Your task to perform on an android device: Clear the cart on bestbuy. Search for "lg ultragear" on bestbuy, select the first entry, add it to the cart, then select checkout. Image 0: 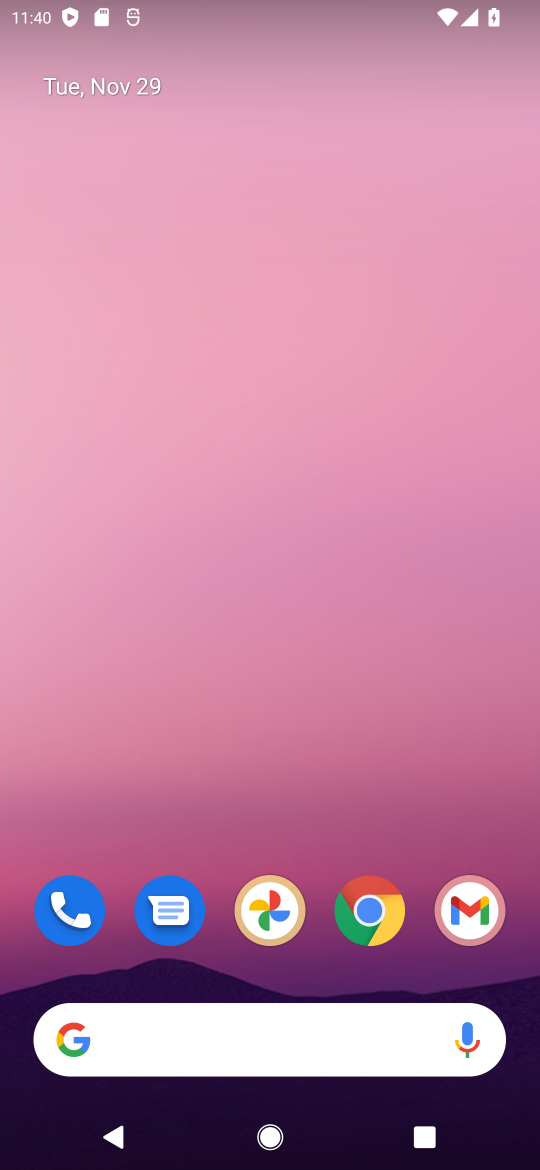
Step 0: click (373, 913)
Your task to perform on an android device: Clear the cart on bestbuy. Search for "lg ultragear" on bestbuy, select the first entry, add it to the cart, then select checkout. Image 1: 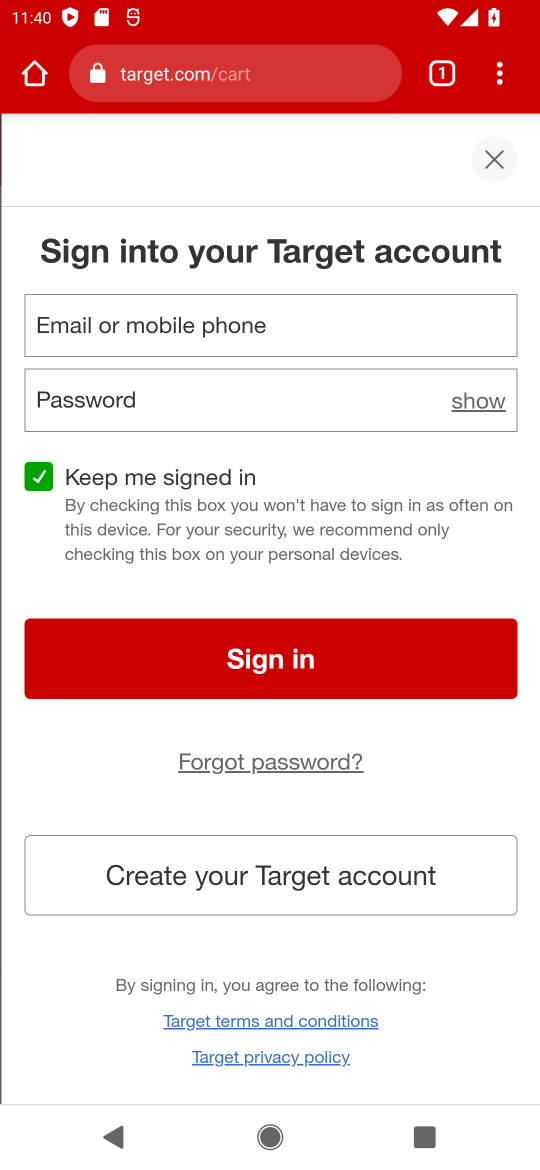
Step 1: click (201, 80)
Your task to perform on an android device: Clear the cart on bestbuy. Search for "lg ultragear" on bestbuy, select the first entry, add it to the cart, then select checkout. Image 2: 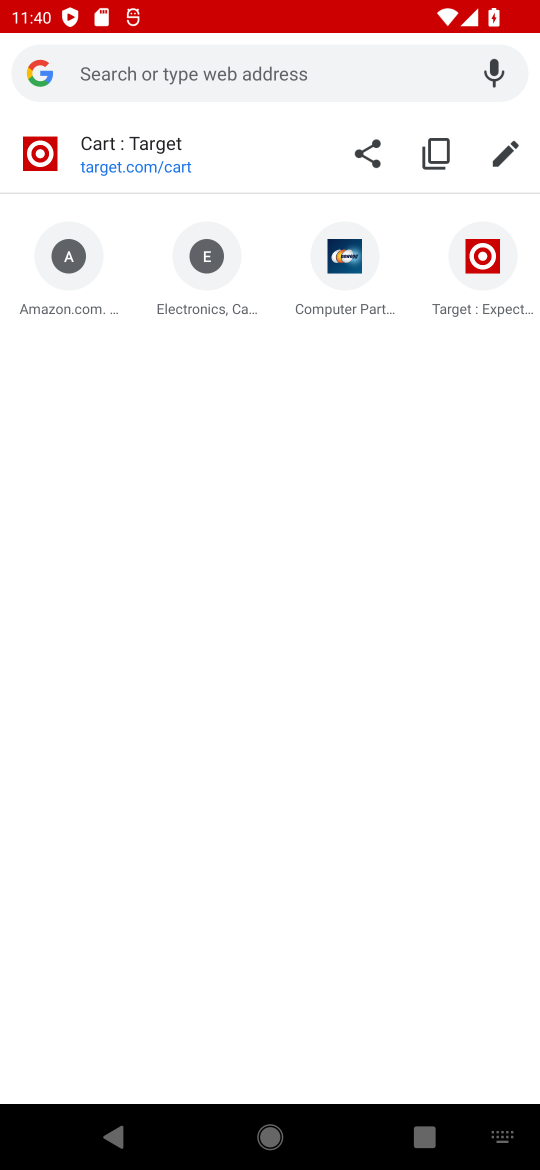
Step 2: type "bestbuy.com"
Your task to perform on an android device: Clear the cart on bestbuy. Search for "lg ultragear" on bestbuy, select the first entry, add it to the cart, then select checkout. Image 3: 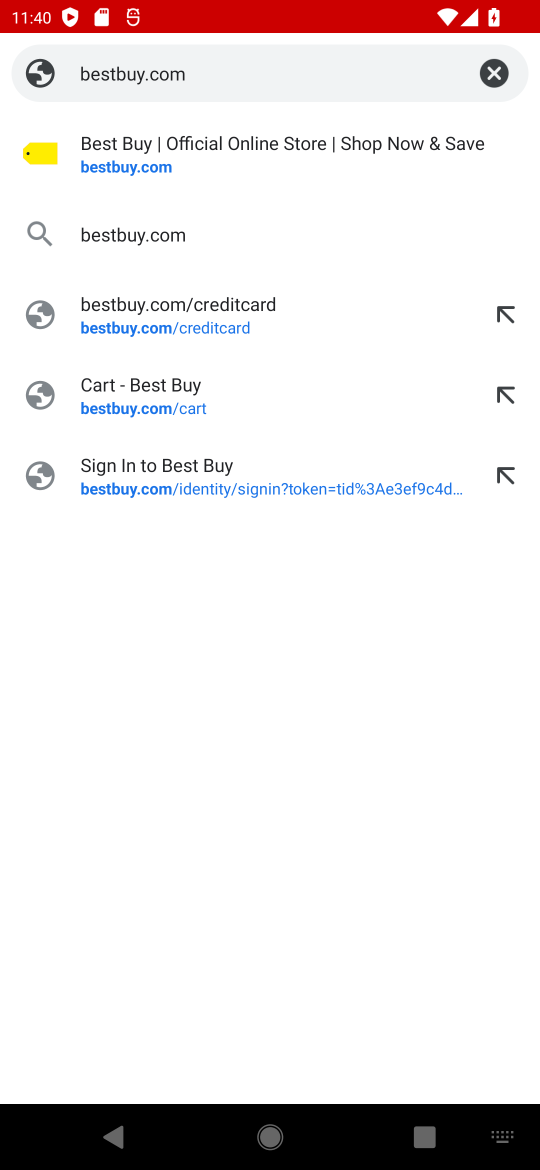
Step 3: click (123, 153)
Your task to perform on an android device: Clear the cart on bestbuy. Search for "lg ultragear" on bestbuy, select the first entry, add it to the cart, then select checkout. Image 4: 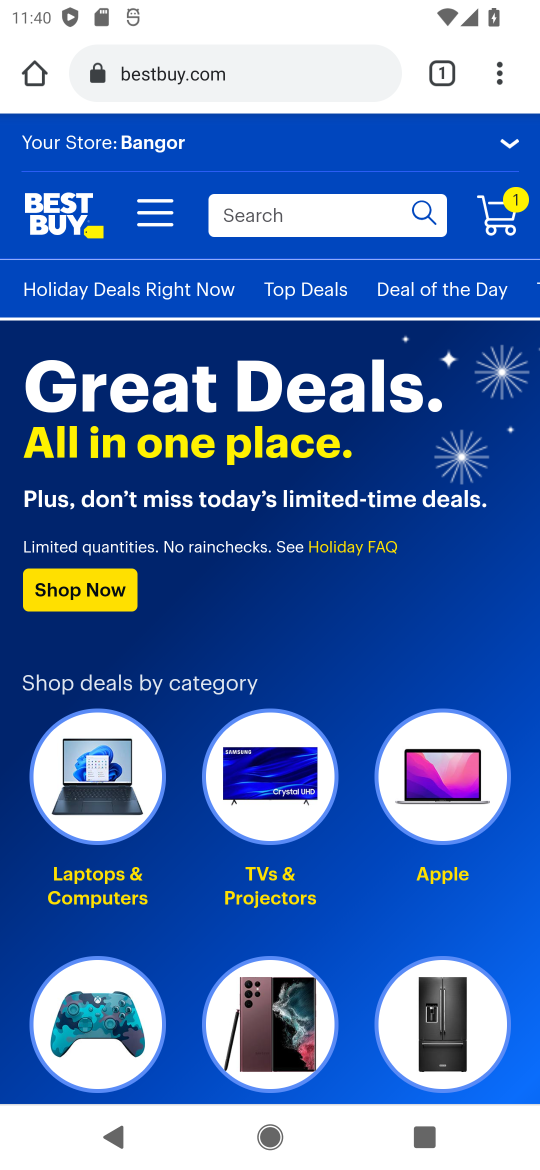
Step 4: click (502, 212)
Your task to perform on an android device: Clear the cart on bestbuy. Search for "lg ultragear" on bestbuy, select the first entry, add it to the cart, then select checkout. Image 5: 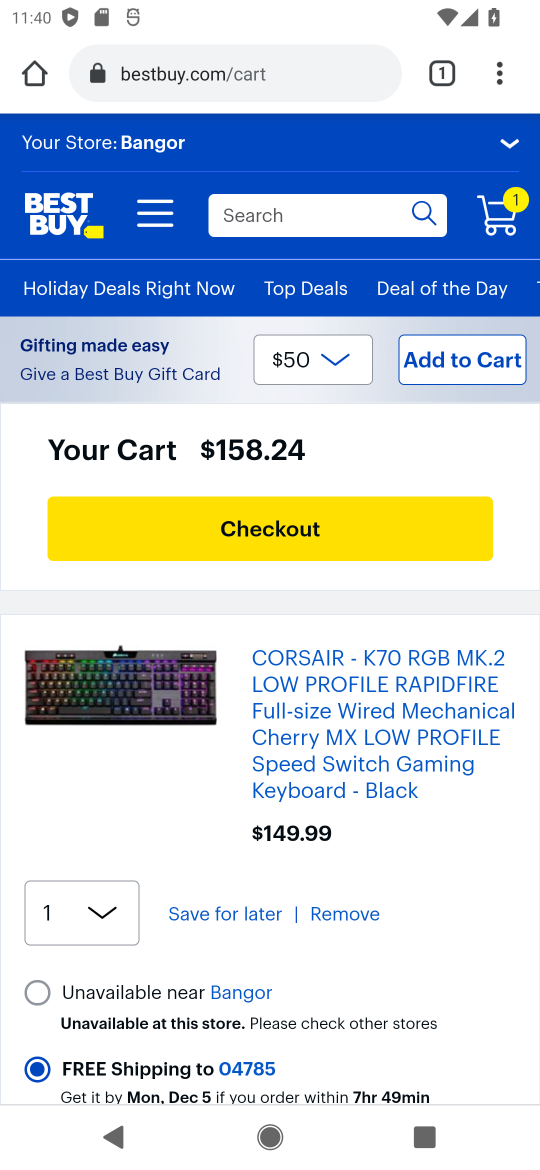
Step 5: click (338, 908)
Your task to perform on an android device: Clear the cart on bestbuy. Search for "lg ultragear" on bestbuy, select the first entry, add it to the cart, then select checkout. Image 6: 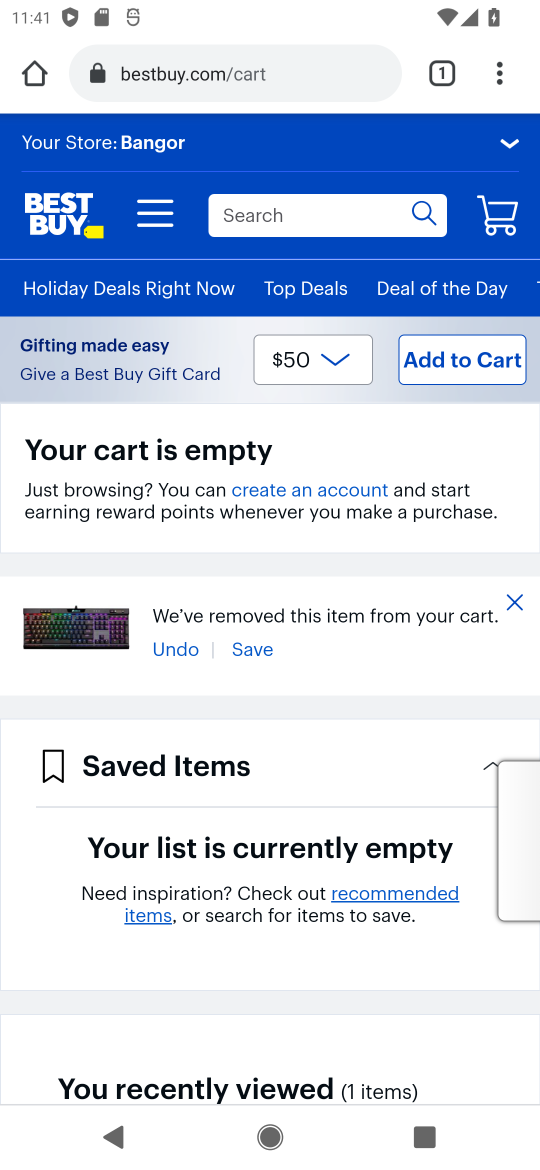
Step 6: click (282, 218)
Your task to perform on an android device: Clear the cart on bestbuy. Search for "lg ultragear" on bestbuy, select the first entry, add it to the cart, then select checkout. Image 7: 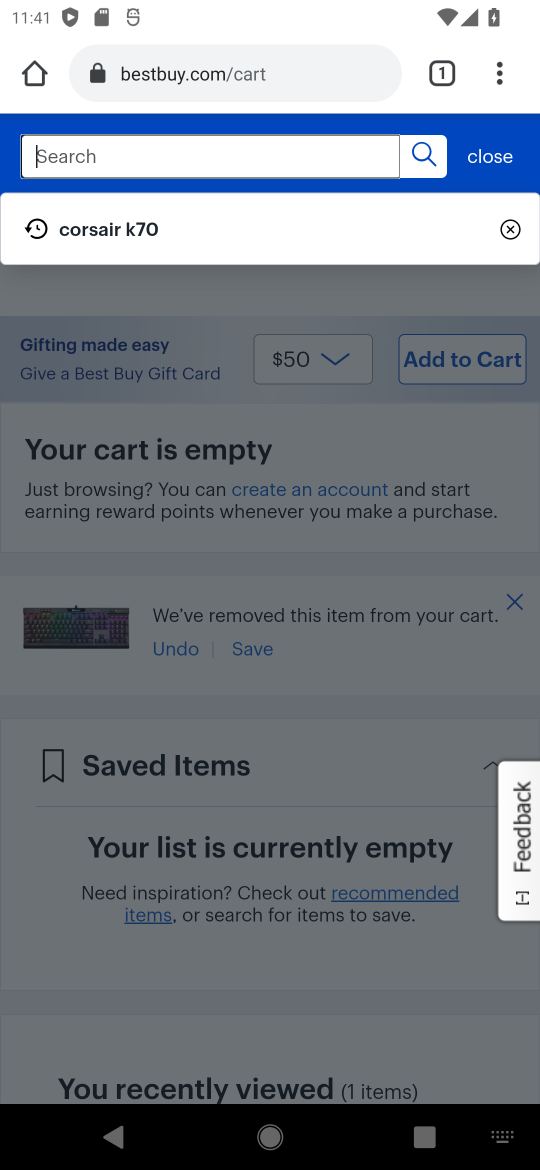
Step 7: type "lg ultragear"
Your task to perform on an android device: Clear the cart on bestbuy. Search for "lg ultragear" on bestbuy, select the first entry, add it to the cart, then select checkout. Image 8: 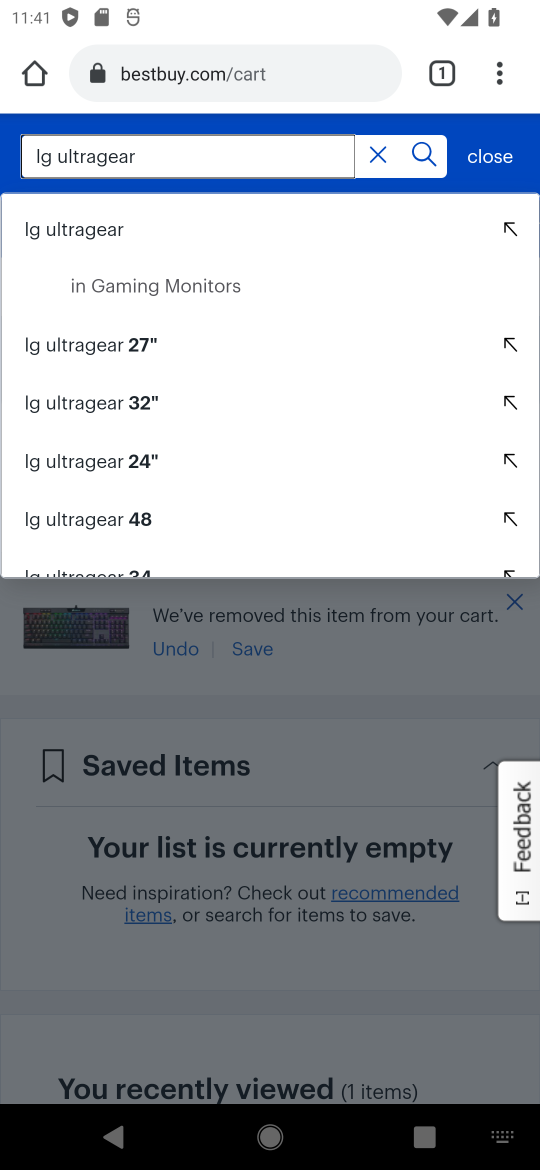
Step 8: click (93, 233)
Your task to perform on an android device: Clear the cart on bestbuy. Search for "lg ultragear" on bestbuy, select the first entry, add it to the cart, then select checkout. Image 9: 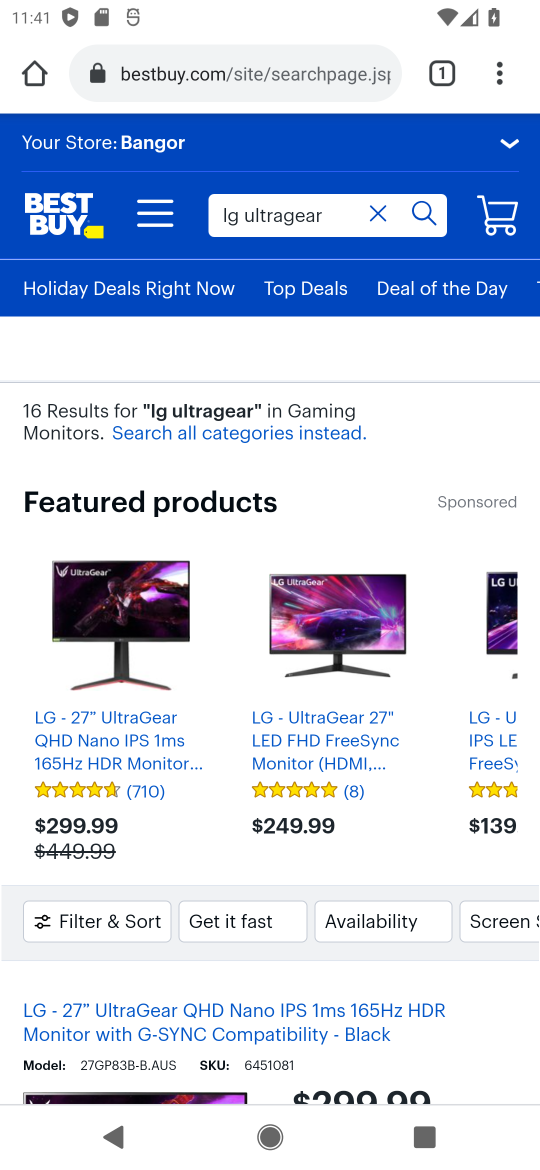
Step 9: drag from (409, 966) to (339, 522)
Your task to perform on an android device: Clear the cart on bestbuy. Search for "lg ultragear" on bestbuy, select the first entry, add it to the cart, then select checkout. Image 10: 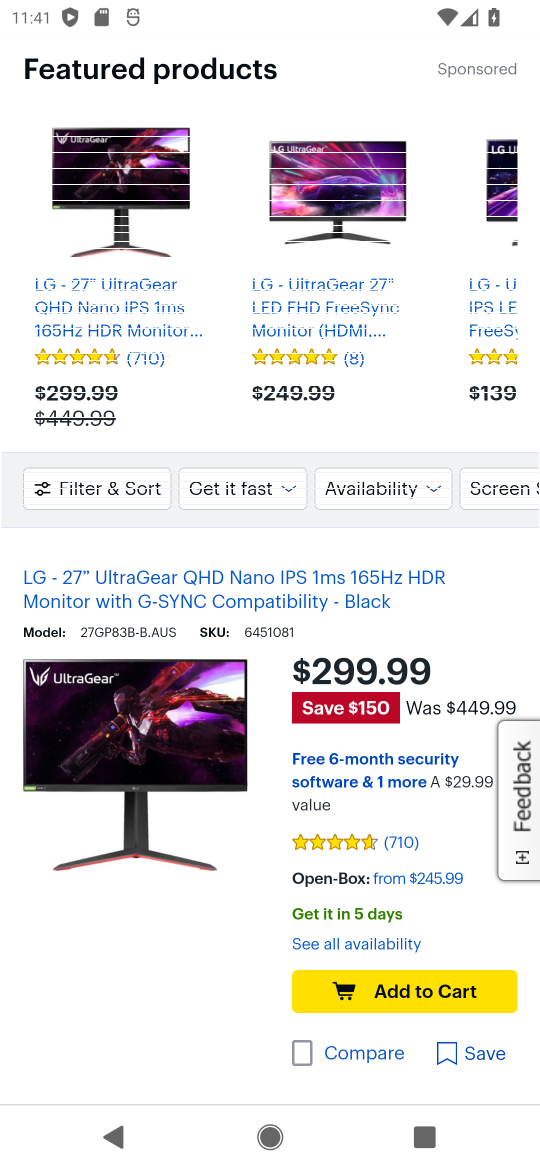
Step 10: click (395, 978)
Your task to perform on an android device: Clear the cart on bestbuy. Search for "lg ultragear" on bestbuy, select the first entry, add it to the cart, then select checkout. Image 11: 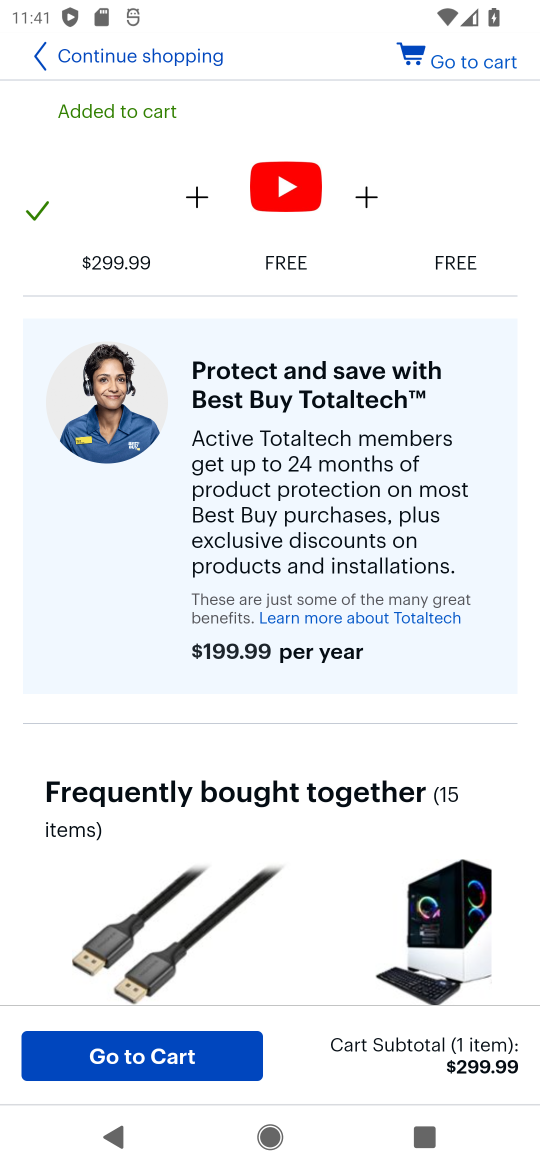
Step 11: click (480, 61)
Your task to perform on an android device: Clear the cart on bestbuy. Search for "lg ultragear" on bestbuy, select the first entry, add it to the cart, then select checkout. Image 12: 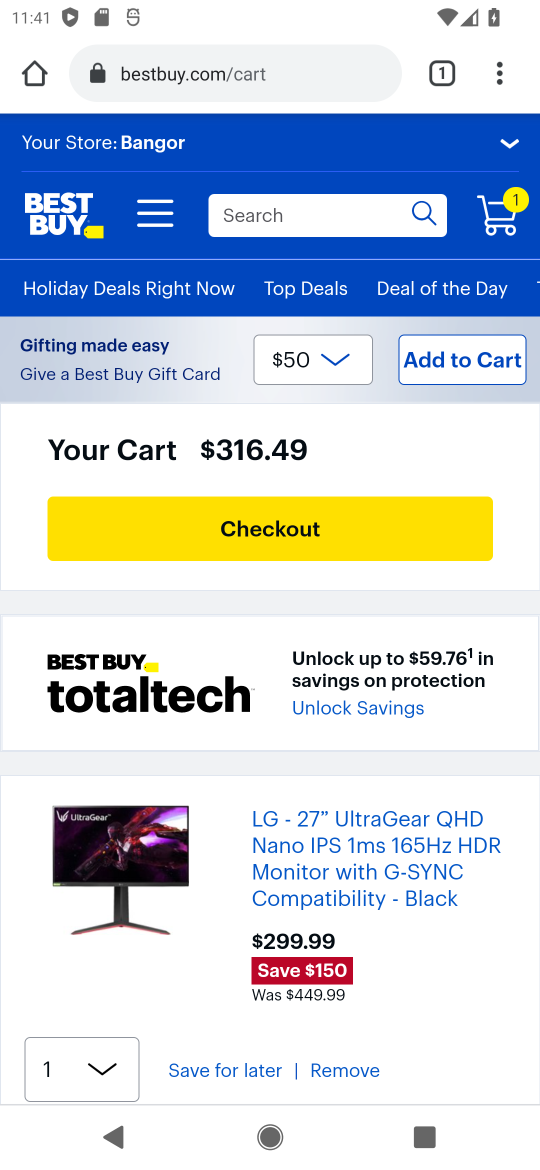
Step 12: click (240, 522)
Your task to perform on an android device: Clear the cart on bestbuy. Search for "lg ultragear" on bestbuy, select the first entry, add it to the cart, then select checkout. Image 13: 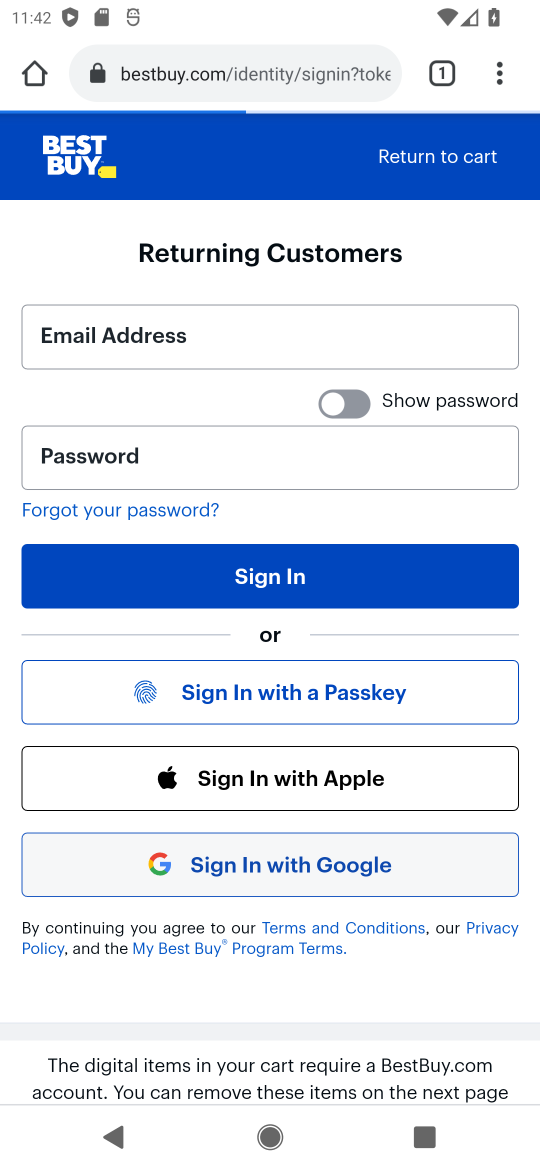
Step 13: task complete